Your task to perform on an android device: Open the Play Movies app and select the watchlist tab. Image 0: 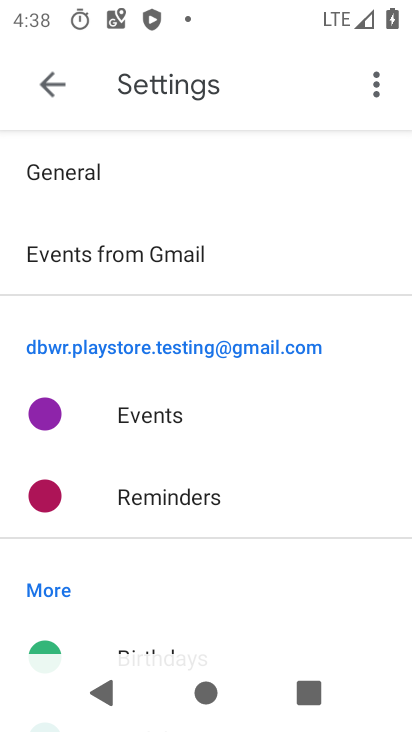
Step 0: press home button
Your task to perform on an android device: Open the Play Movies app and select the watchlist tab. Image 1: 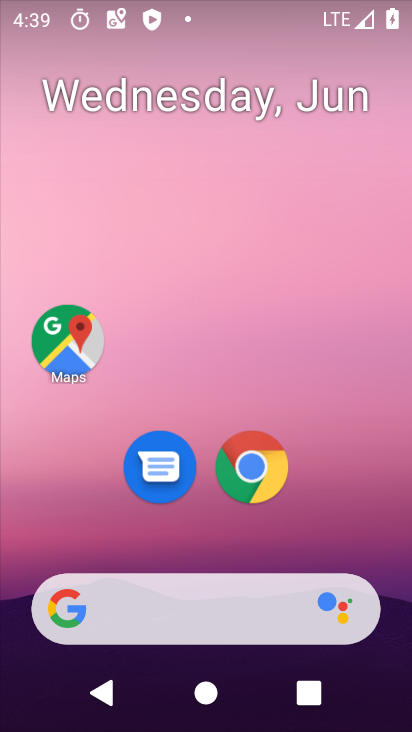
Step 1: drag from (347, 528) to (280, 52)
Your task to perform on an android device: Open the Play Movies app and select the watchlist tab. Image 2: 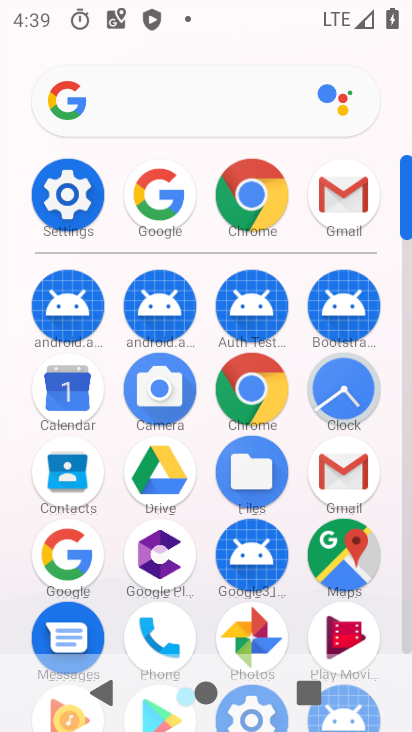
Step 2: click (349, 634)
Your task to perform on an android device: Open the Play Movies app and select the watchlist tab. Image 3: 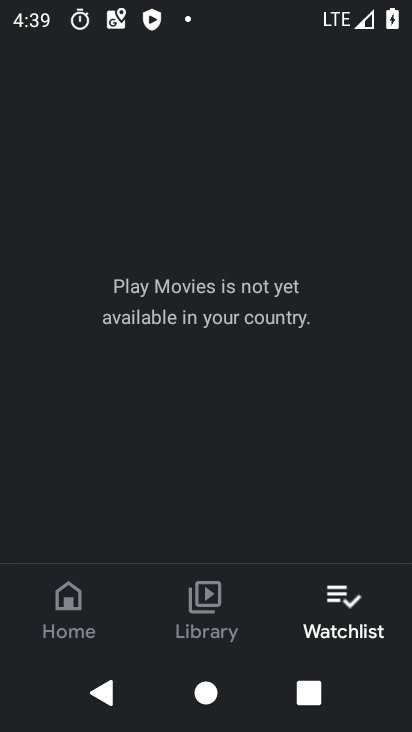
Step 3: task complete